Your task to perform on an android device: Add "apple airpods pro" to the cart on amazon Image 0: 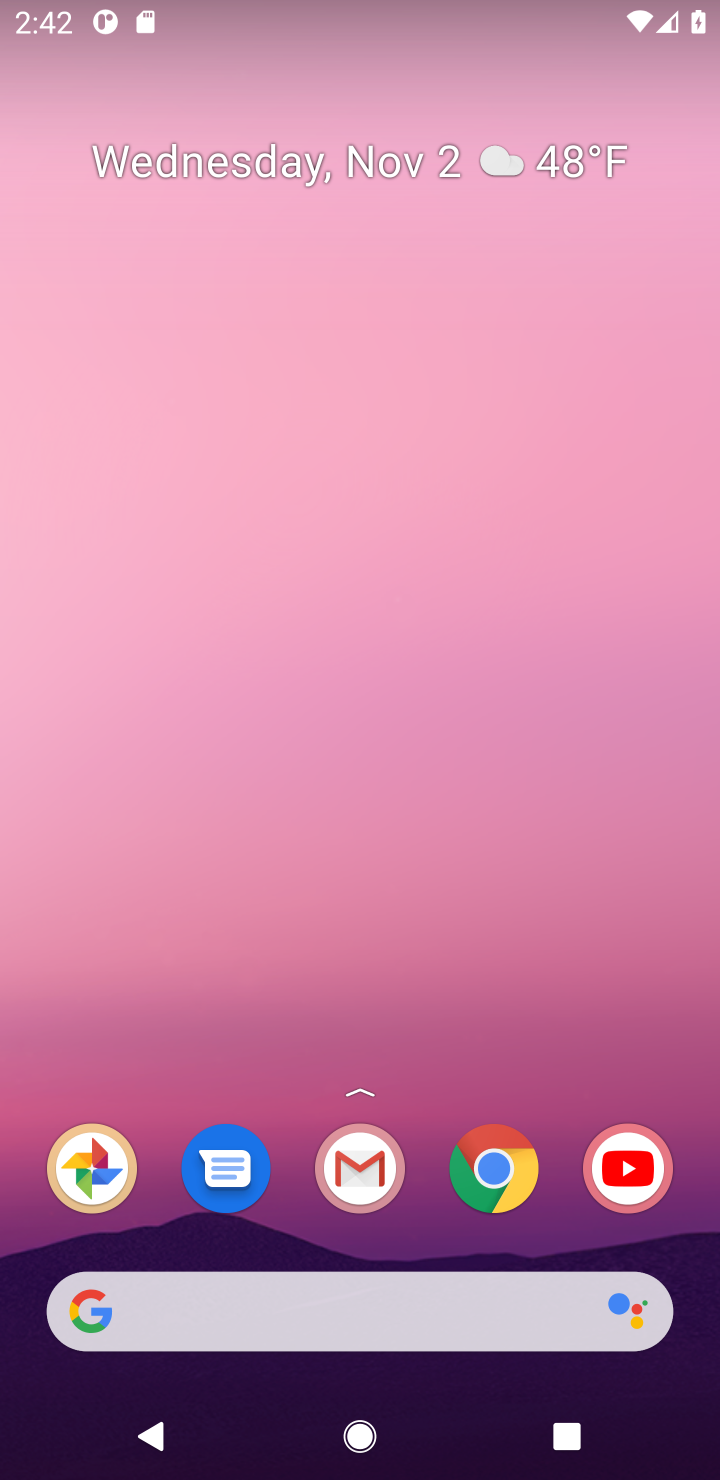
Step 0: click (361, 1314)
Your task to perform on an android device: Add "apple airpods pro" to the cart on amazon Image 1: 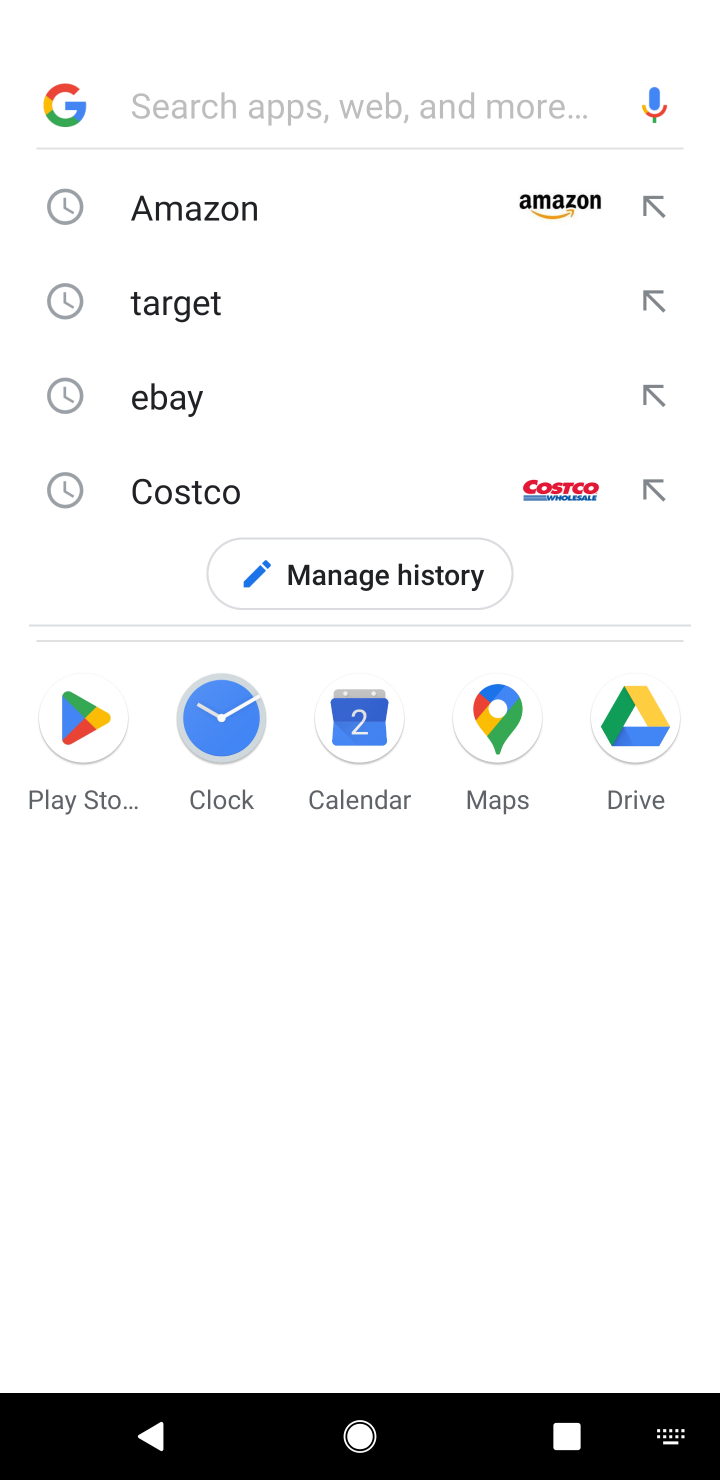
Step 1: type "amazon"
Your task to perform on an android device: Add "apple airpods pro" to the cart on amazon Image 2: 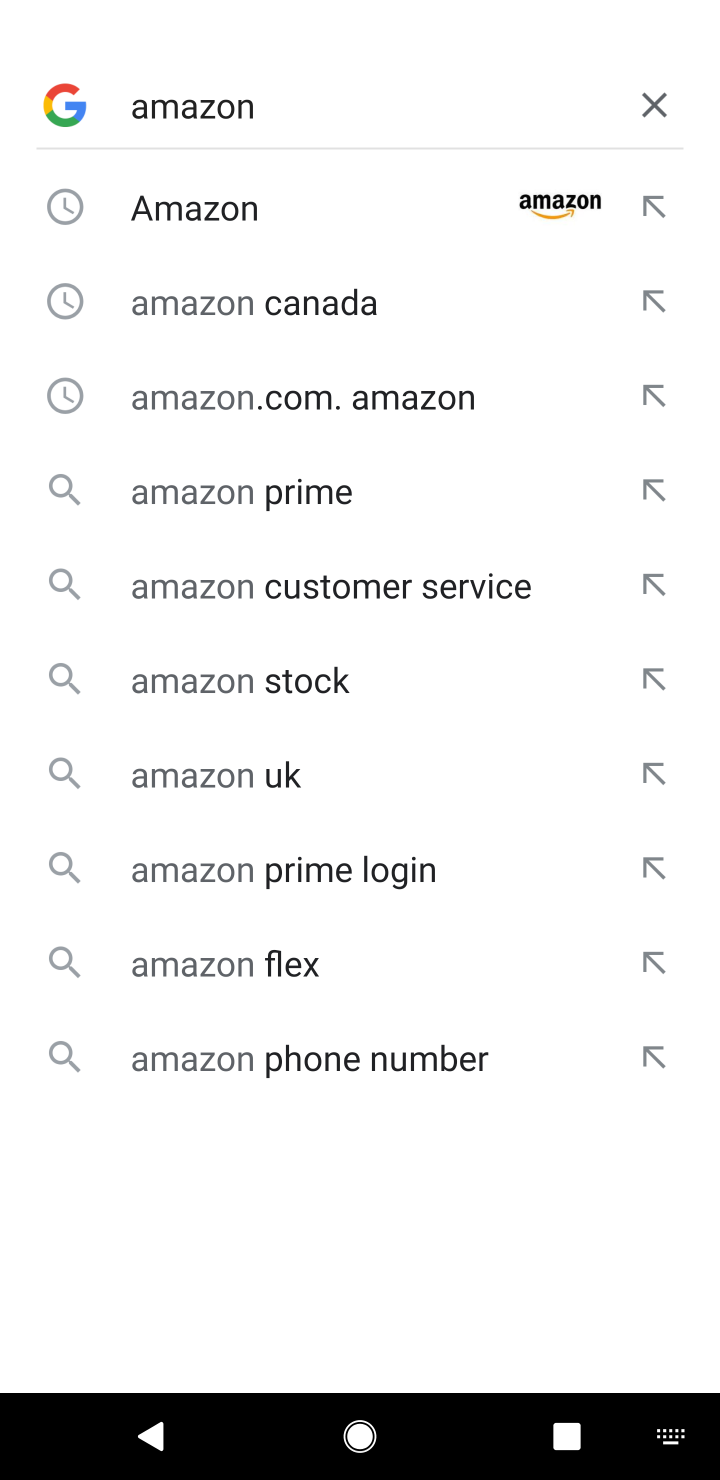
Step 2: click (318, 217)
Your task to perform on an android device: Add "apple airpods pro" to the cart on amazon Image 3: 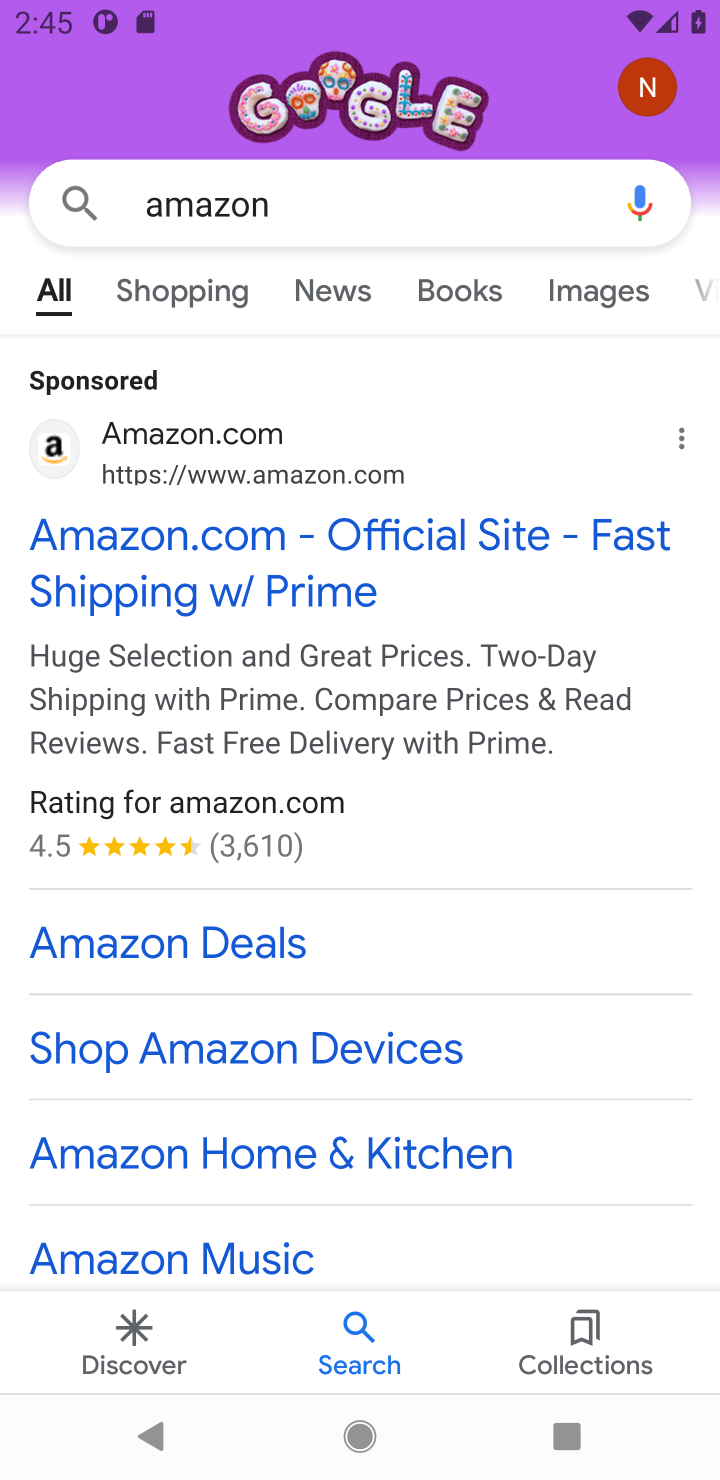
Step 3: click (252, 549)
Your task to perform on an android device: Add "apple airpods pro" to the cart on amazon Image 4: 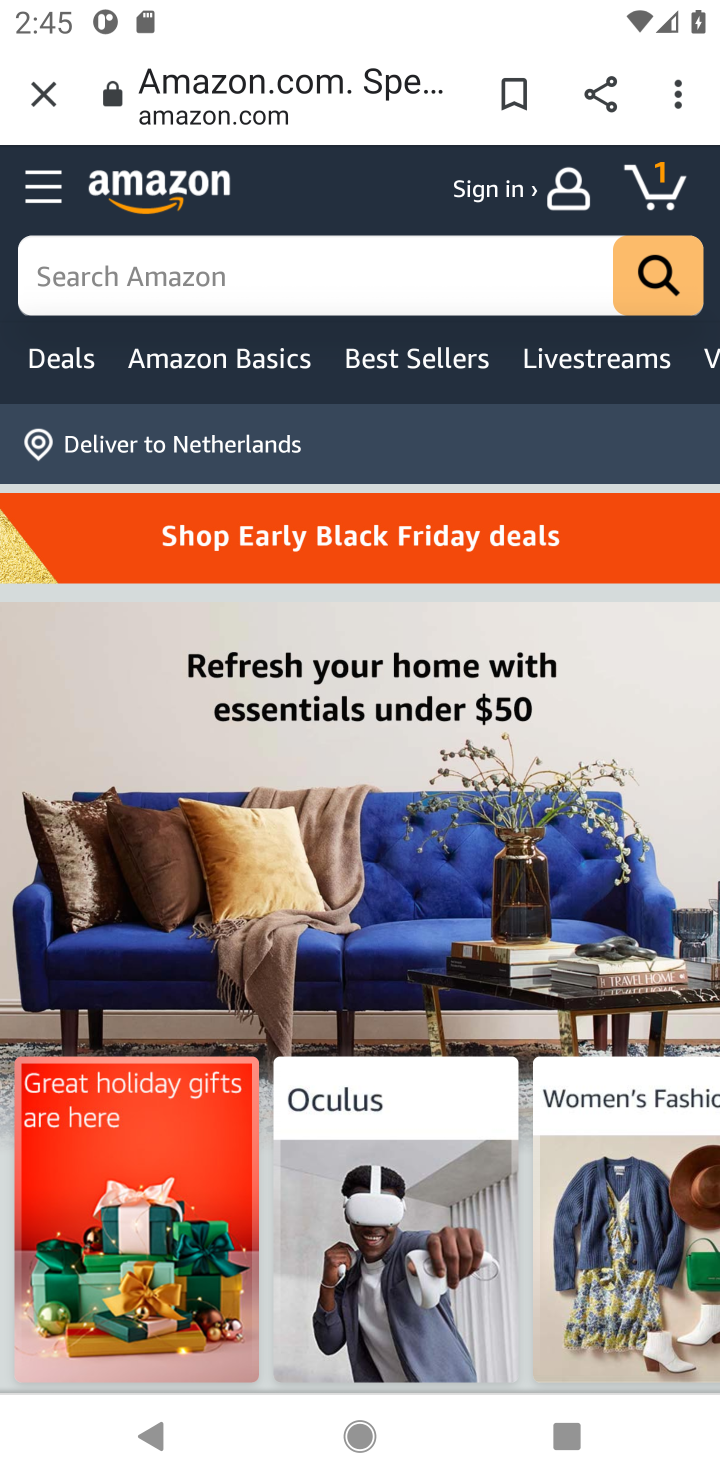
Step 4: click (298, 247)
Your task to perform on an android device: Add "apple airpods pro" to the cart on amazon Image 5: 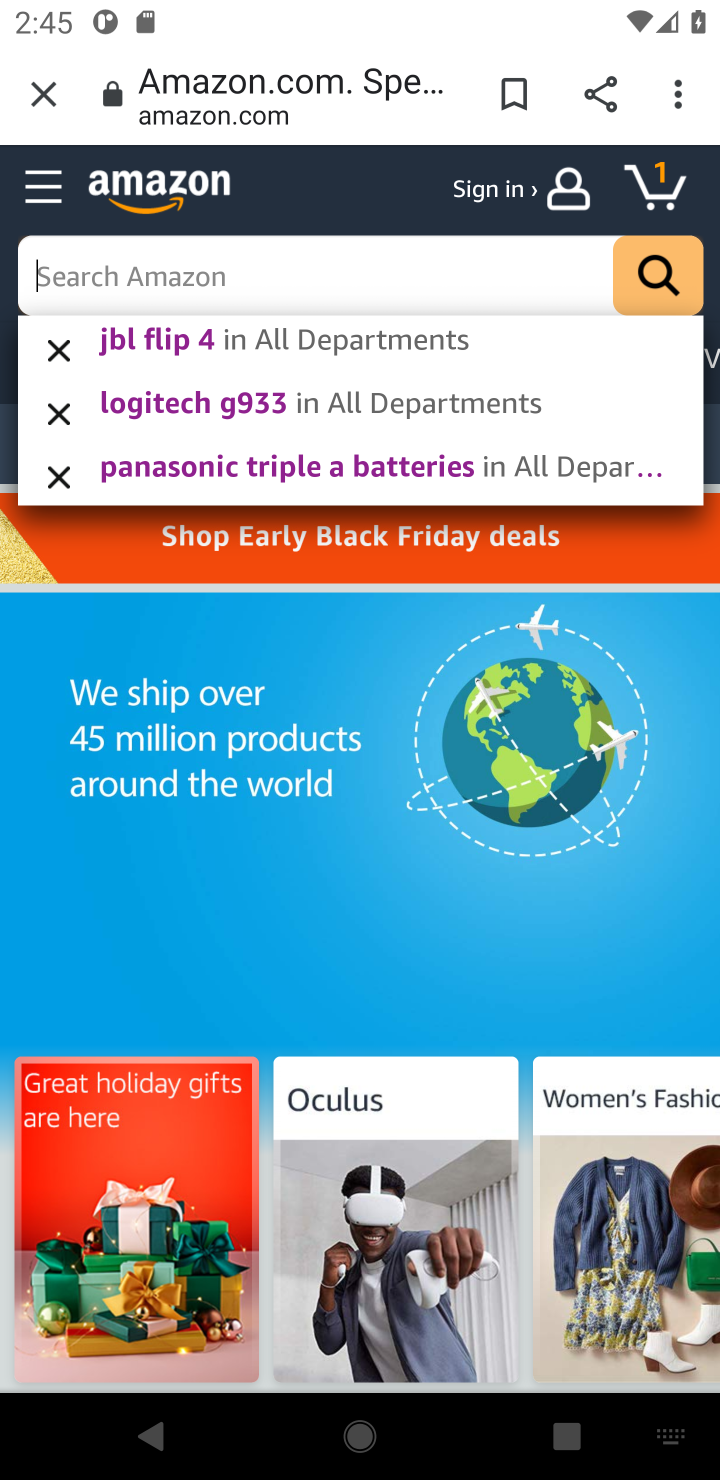
Step 5: click (298, 271)
Your task to perform on an android device: Add "apple airpods pro" to the cart on amazon Image 6: 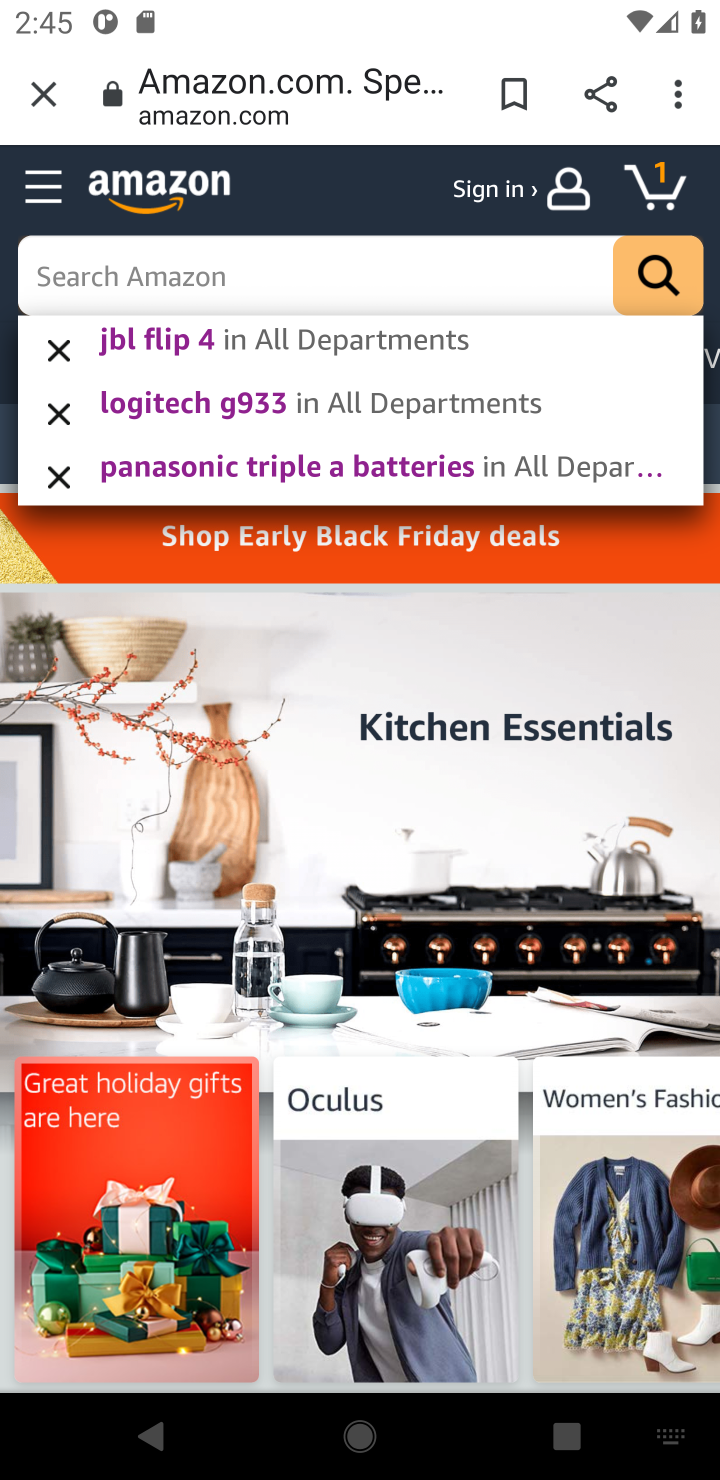
Step 6: type "apple airpods pro"
Your task to perform on an android device: Add "apple airpods pro" to the cart on amazon Image 7: 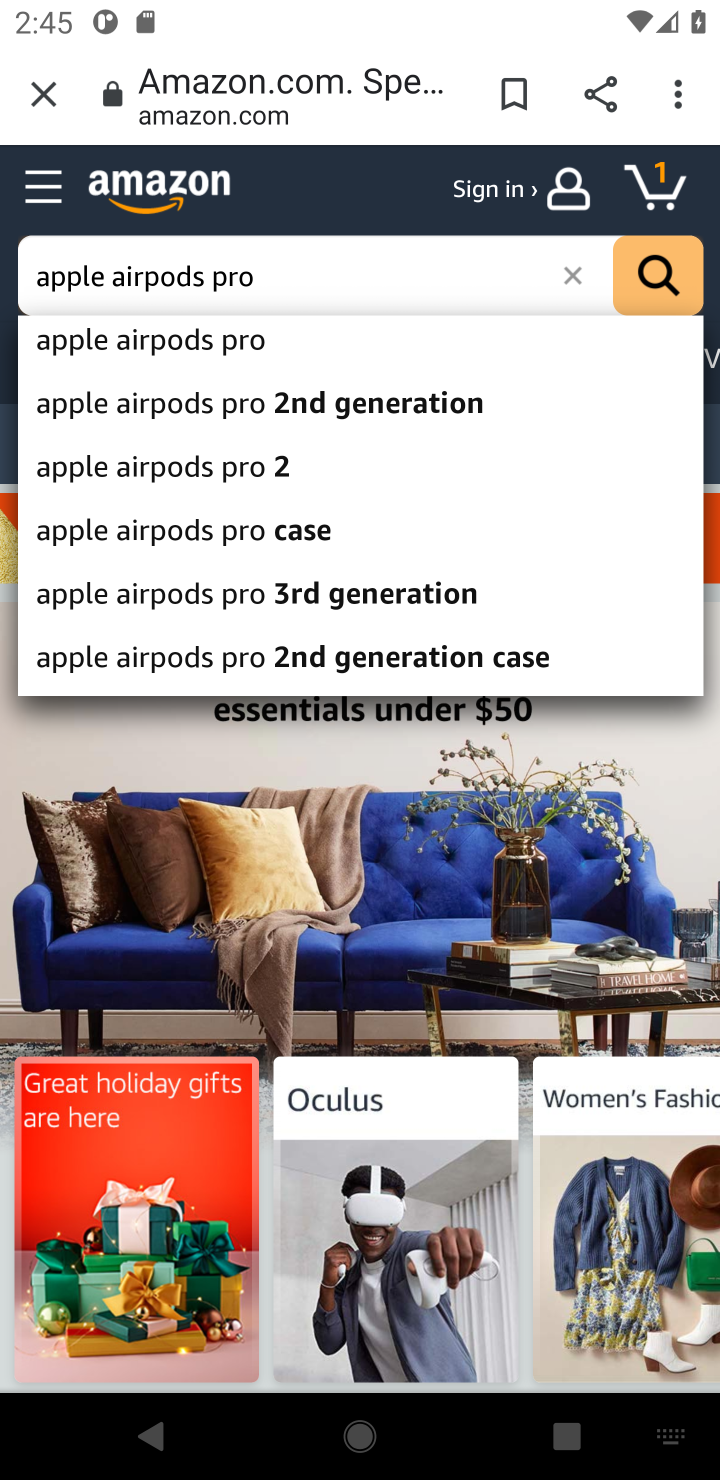
Step 7: click (176, 338)
Your task to perform on an android device: Add "apple airpods pro" to the cart on amazon Image 8: 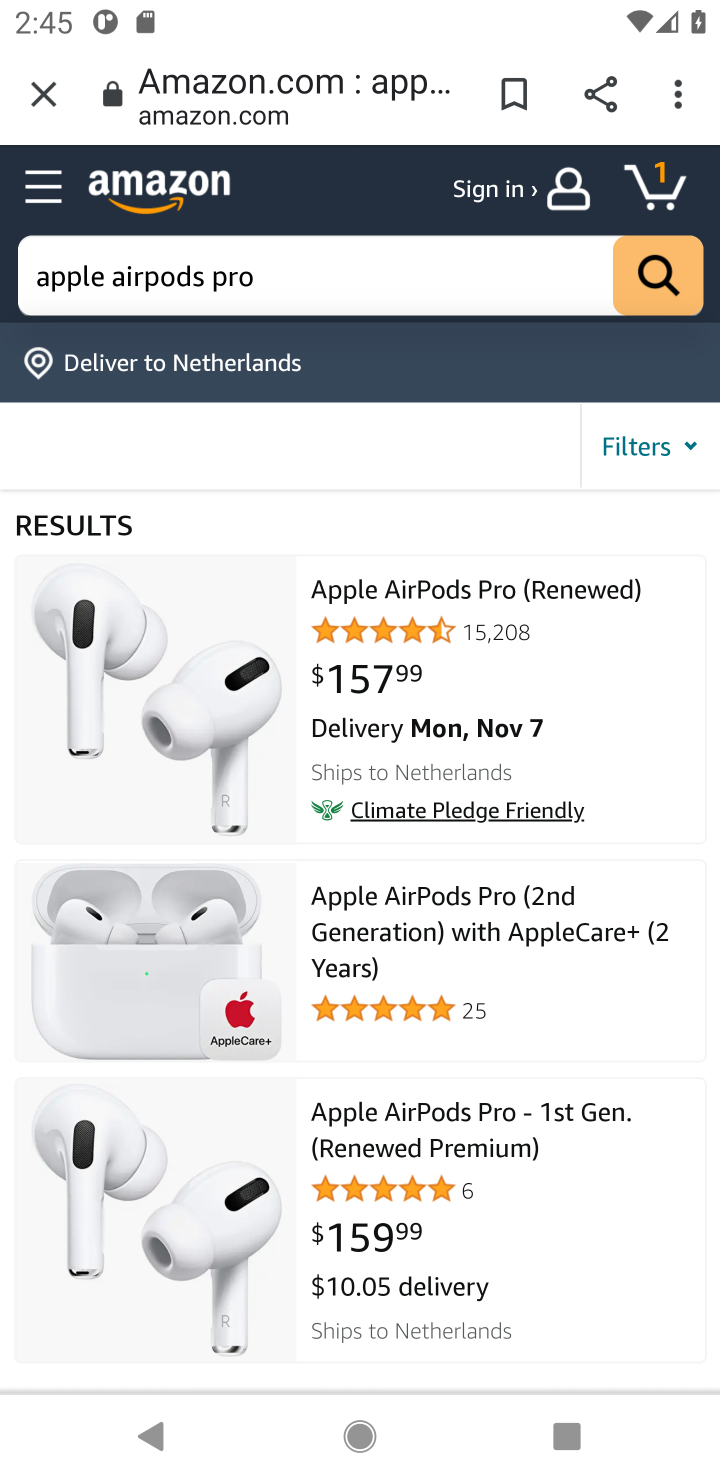
Step 8: click (427, 628)
Your task to perform on an android device: Add "apple airpods pro" to the cart on amazon Image 9: 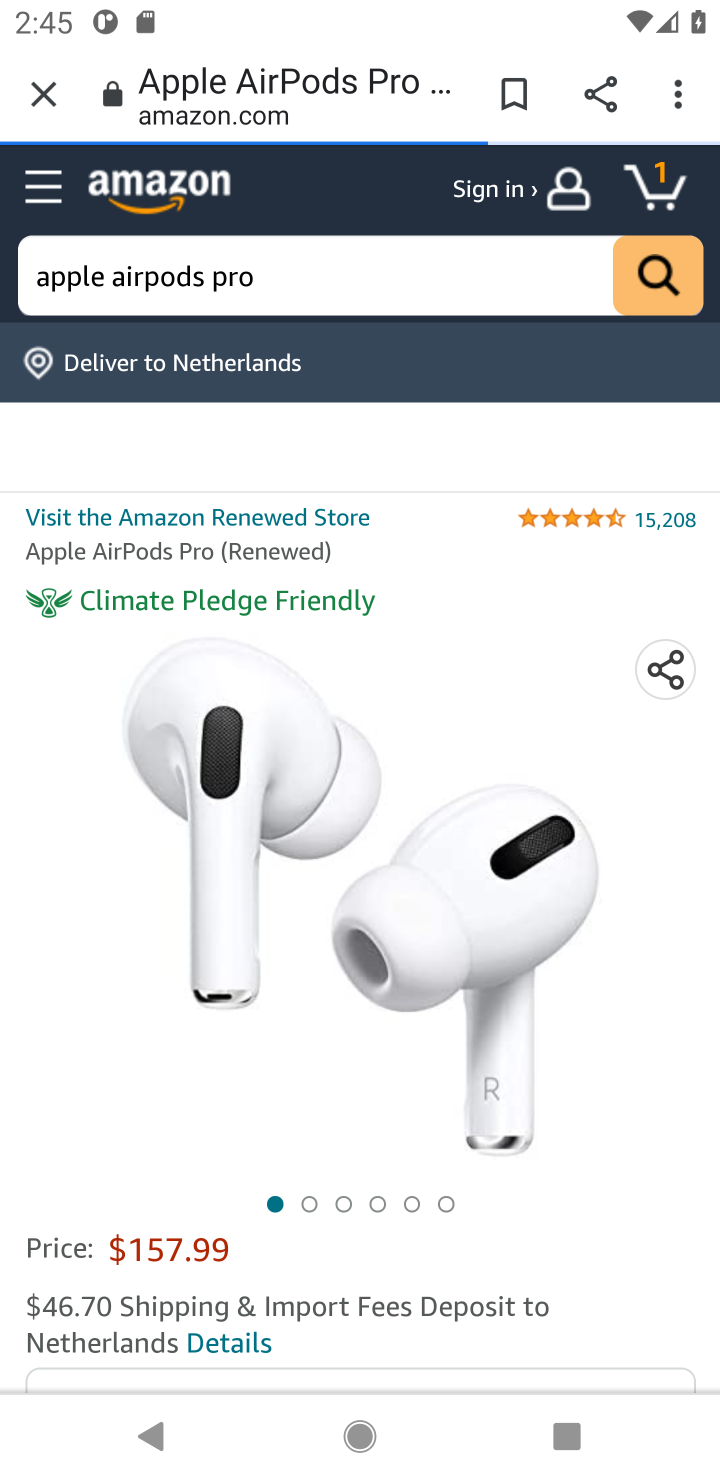
Step 9: drag from (414, 1245) to (397, 726)
Your task to perform on an android device: Add "apple airpods pro" to the cart on amazon Image 10: 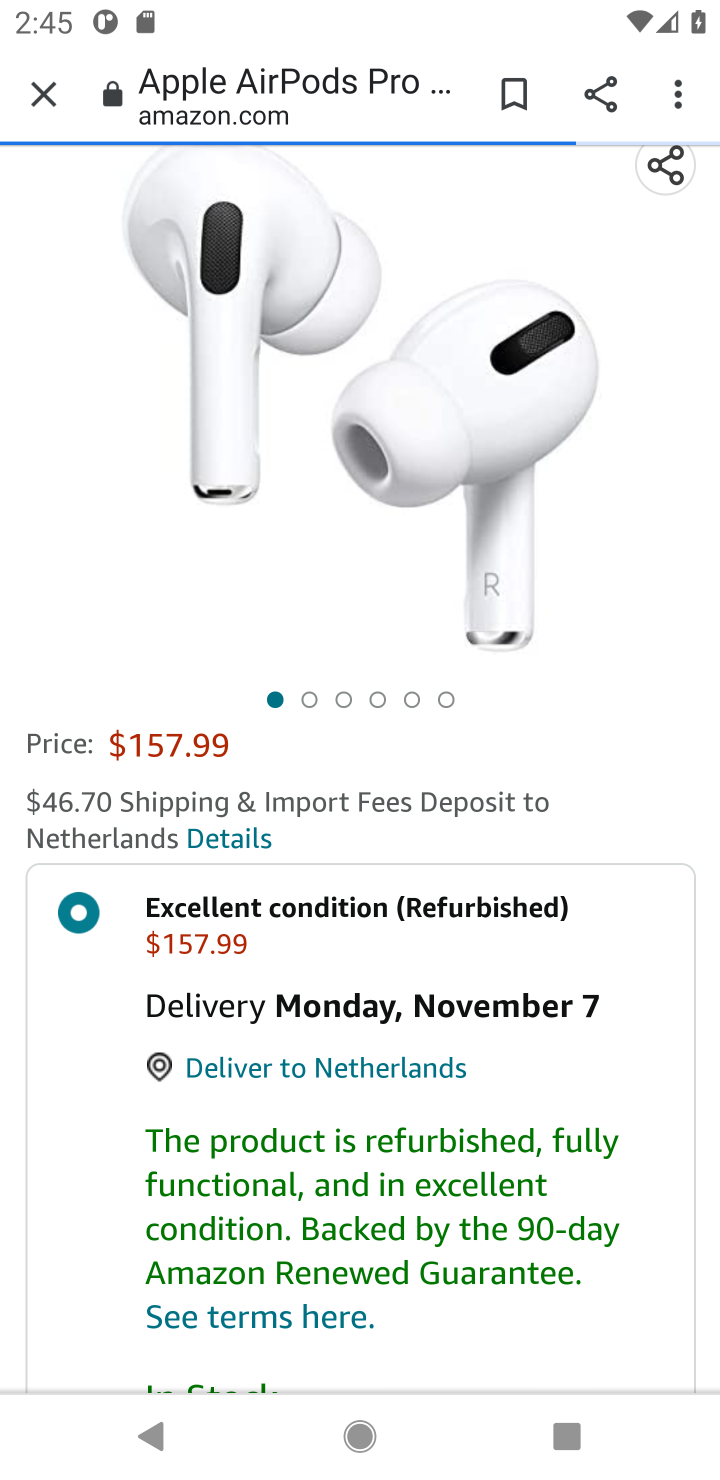
Step 10: drag from (321, 1221) to (315, 845)
Your task to perform on an android device: Add "apple airpods pro" to the cart on amazon Image 11: 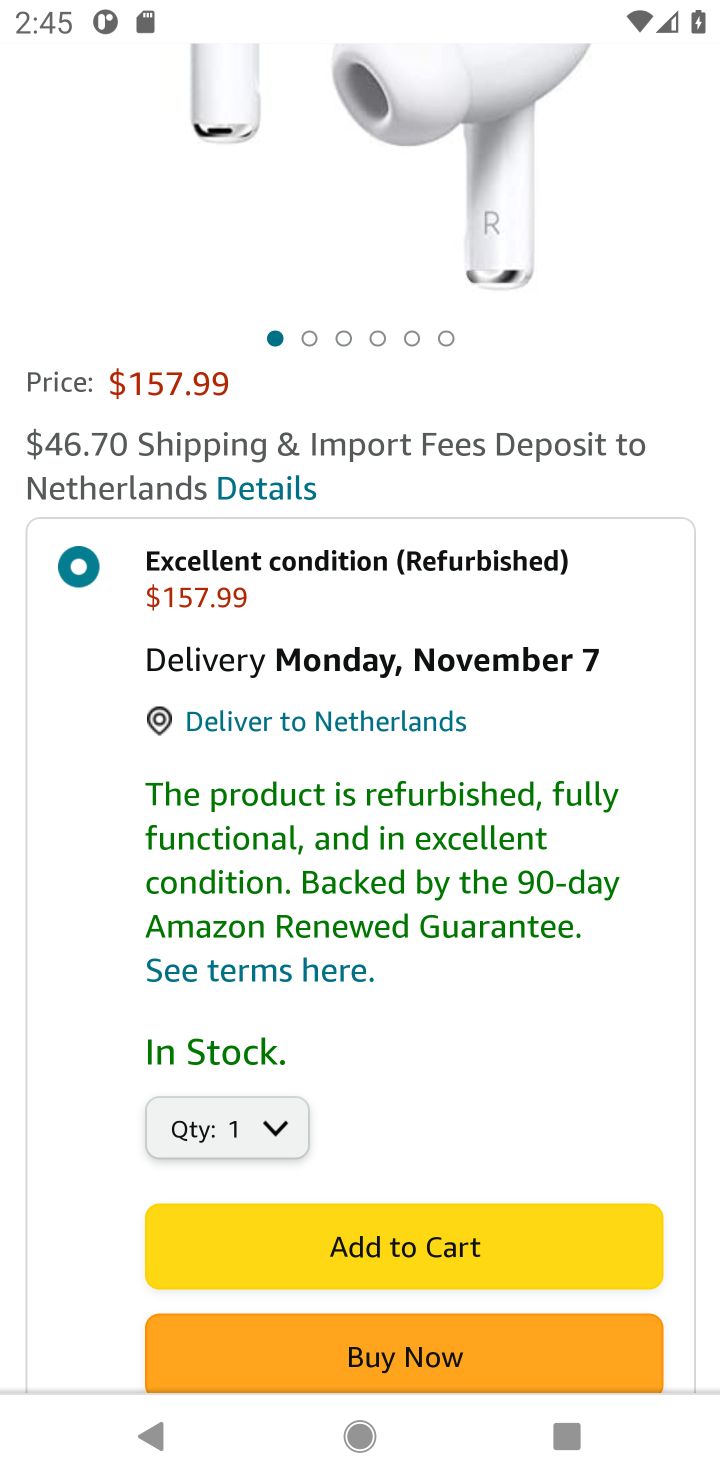
Step 11: click (390, 1265)
Your task to perform on an android device: Add "apple airpods pro" to the cart on amazon Image 12: 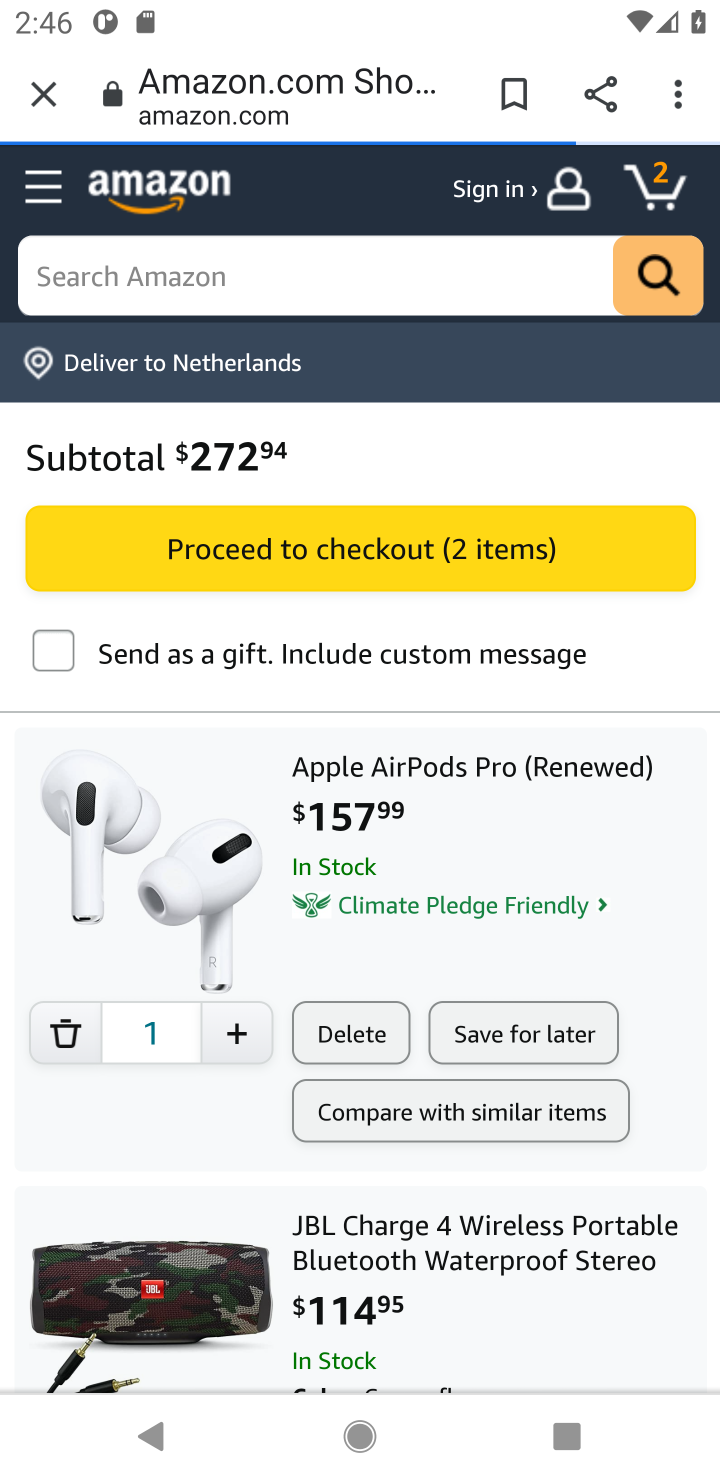
Step 12: task complete